Your task to perform on an android device: turn off airplane mode Image 0: 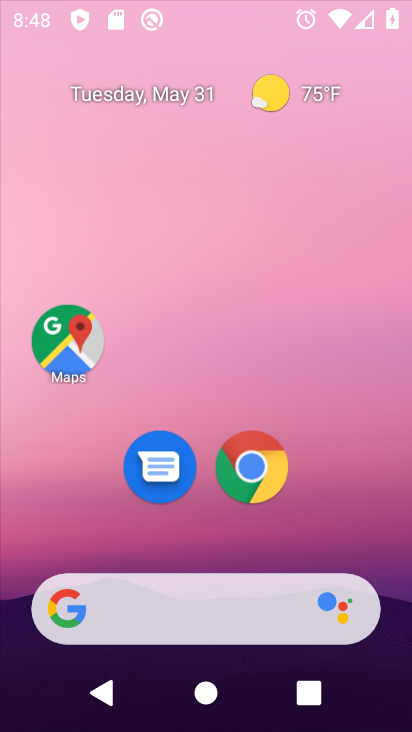
Step 0: drag from (277, 135) to (243, 61)
Your task to perform on an android device: turn off airplane mode Image 1: 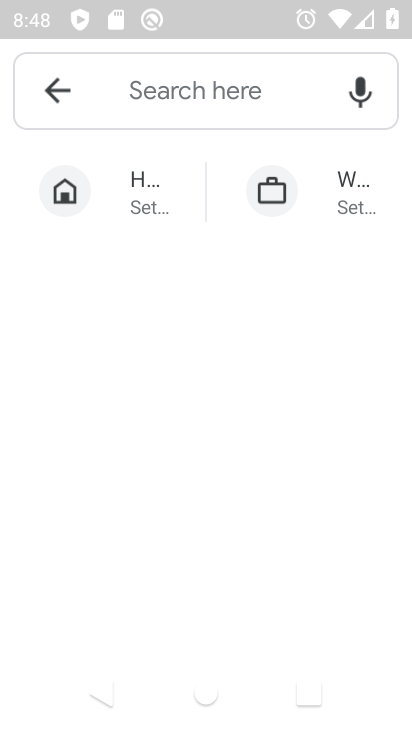
Step 1: press home button
Your task to perform on an android device: turn off airplane mode Image 2: 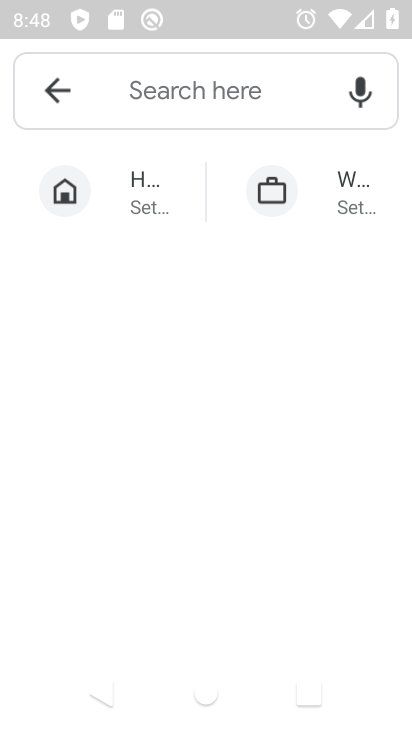
Step 2: click (299, 109)
Your task to perform on an android device: turn off airplane mode Image 3: 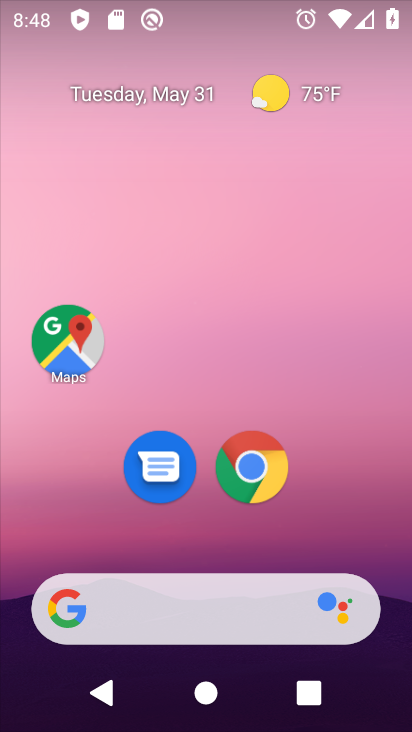
Step 3: drag from (190, 541) to (227, 229)
Your task to perform on an android device: turn off airplane mode Image 4: 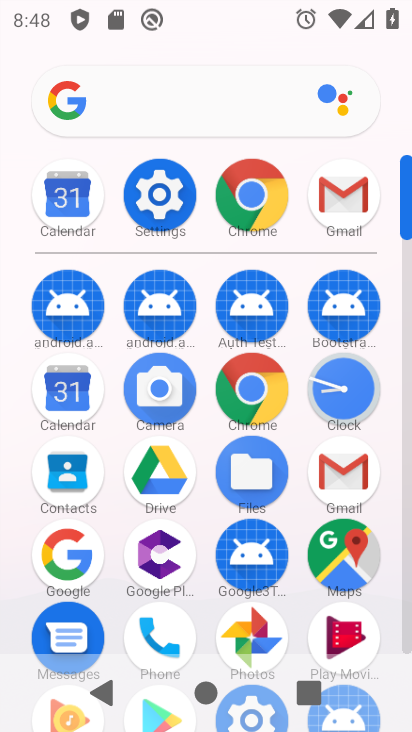
Step 4: click (157, 223)
Your task to perform on an android device: turn off airplane mode Image 5: 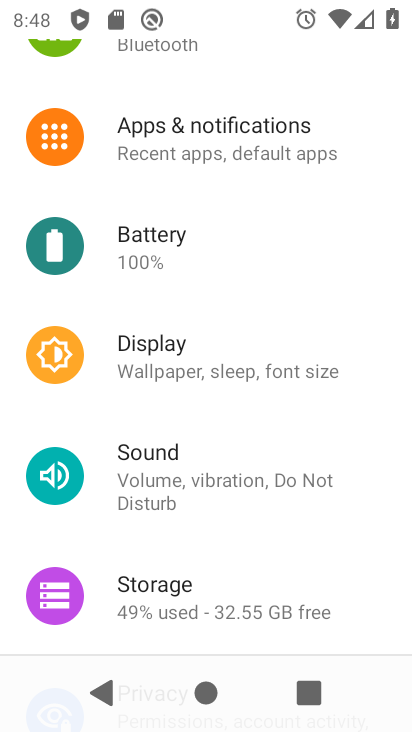
Step 5: drag from (231, 143) to (276, 635)
Your task to perform on an android device: turn off airplane mode Image 6: 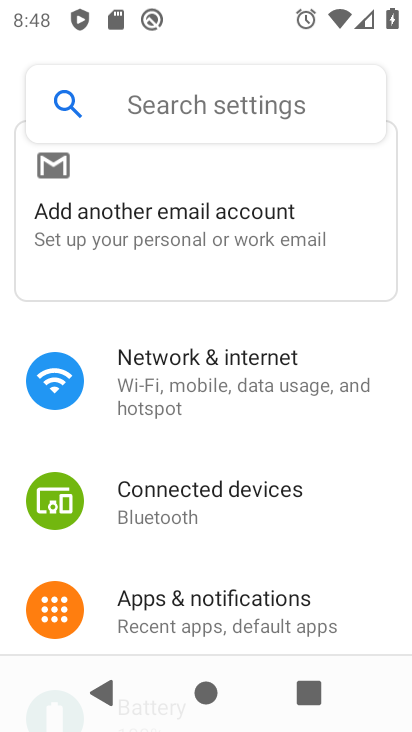
Step 6: click (193, 358)
Your task to perform on an android device: turn off airplane mode Image 7: 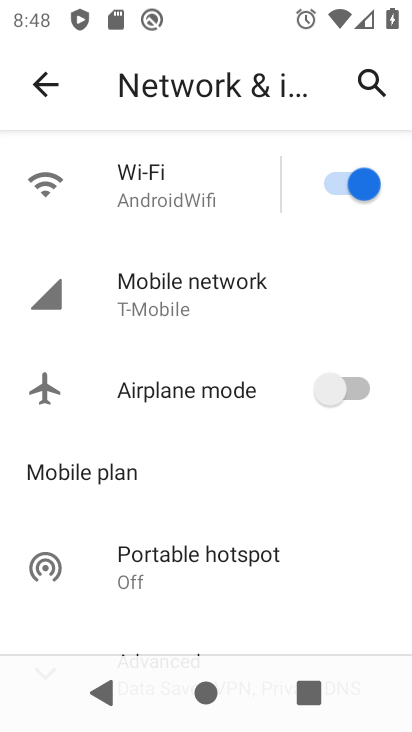
Step 7: task complete